Your task to perform on an android device: Search for asus rog on amazon, select the first entry, add it to the cart, then select checkout. Image 0: 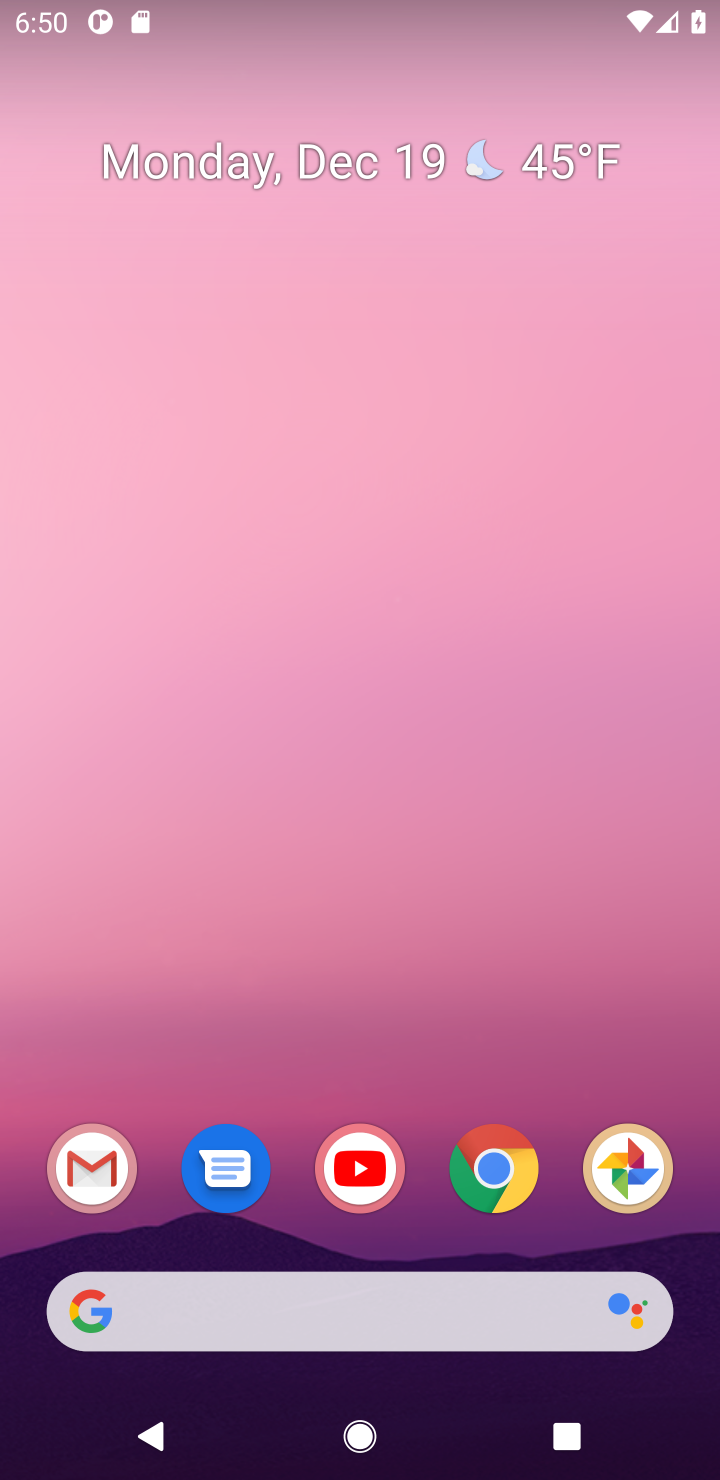
Step 0: click (501, 1166)
Your task to perform on an android device: Search for asus rog on amazon, select the first entry, add it to the cart, then select checkout. Image 1: 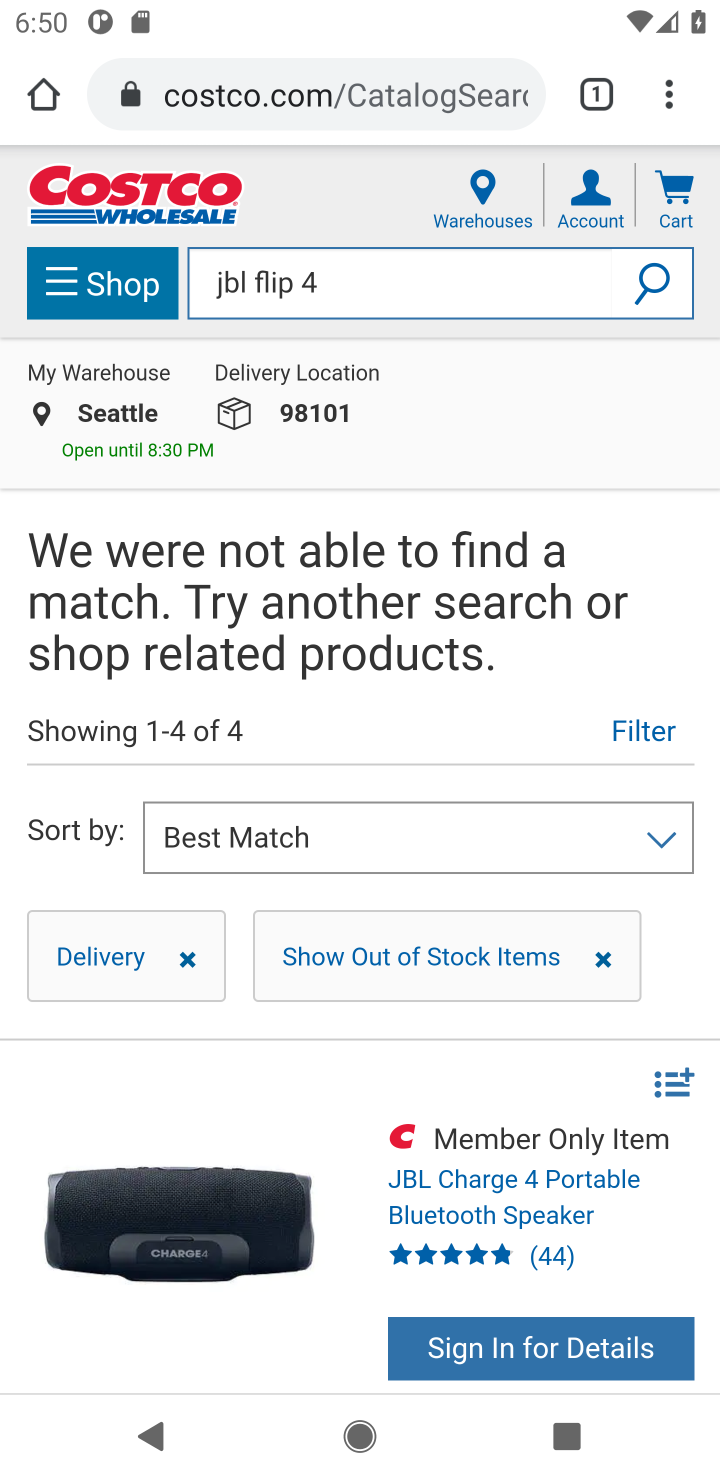
Step 1: click (320, 93)
Your task to perform on an android device: Search for asus rog on amazon, select the first entry, add it to the cart, then select checkout. Image 2: 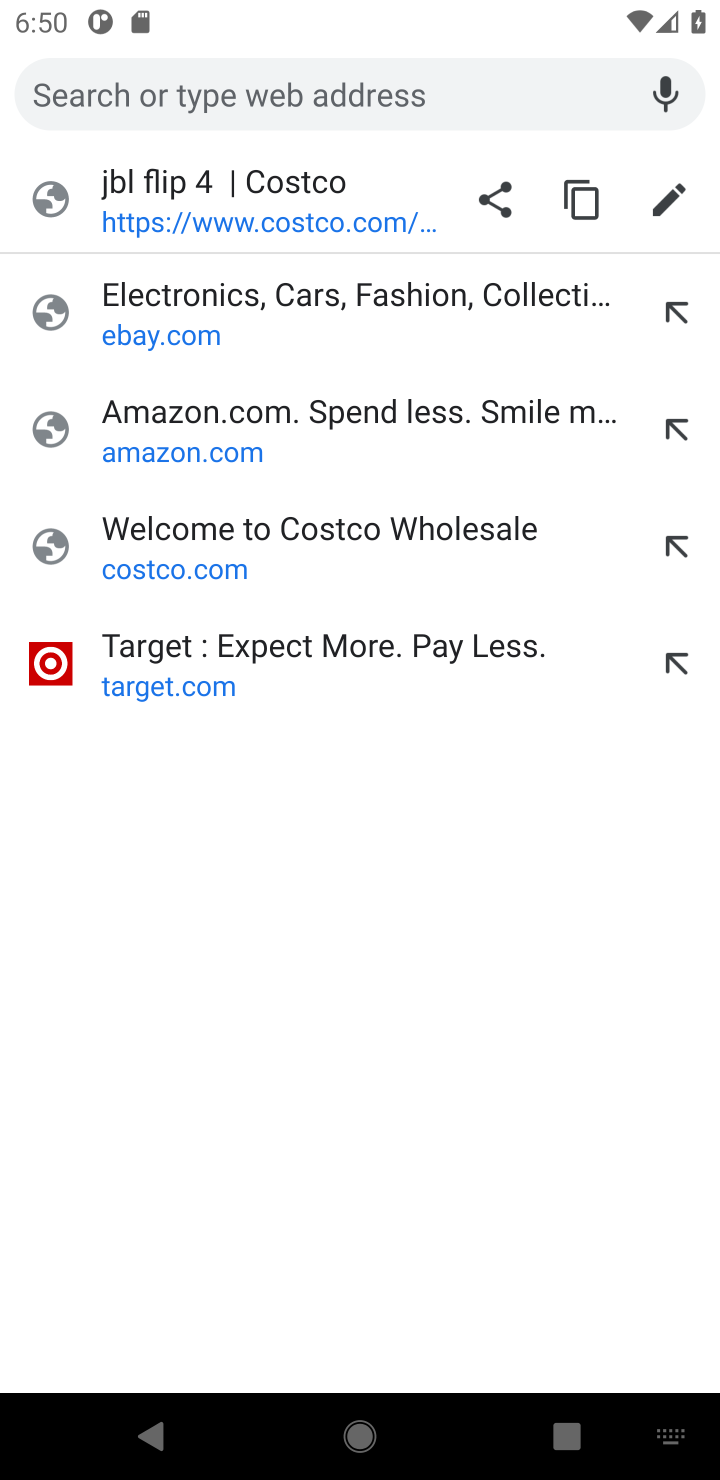
Step 2: click (166, 426)
Your task to perform on an android device: Search for asus rog on amazon, select the first entry, add it to the cart, then select checkout. Image 3: 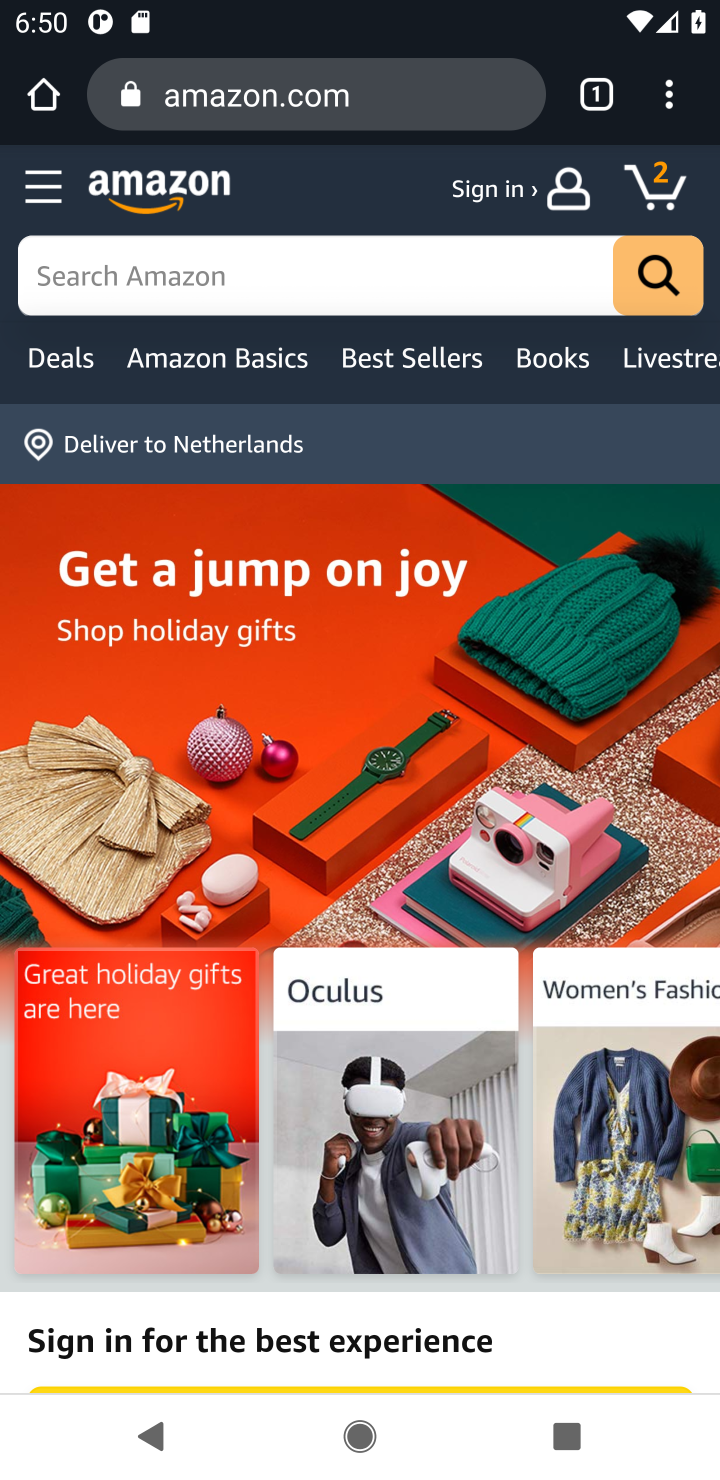
Step 3: click (167, 283)
Your task to perform on an android device: Search for asus rog on amazon, select the first entry, add it to the cart, then select checkout. Image 4: 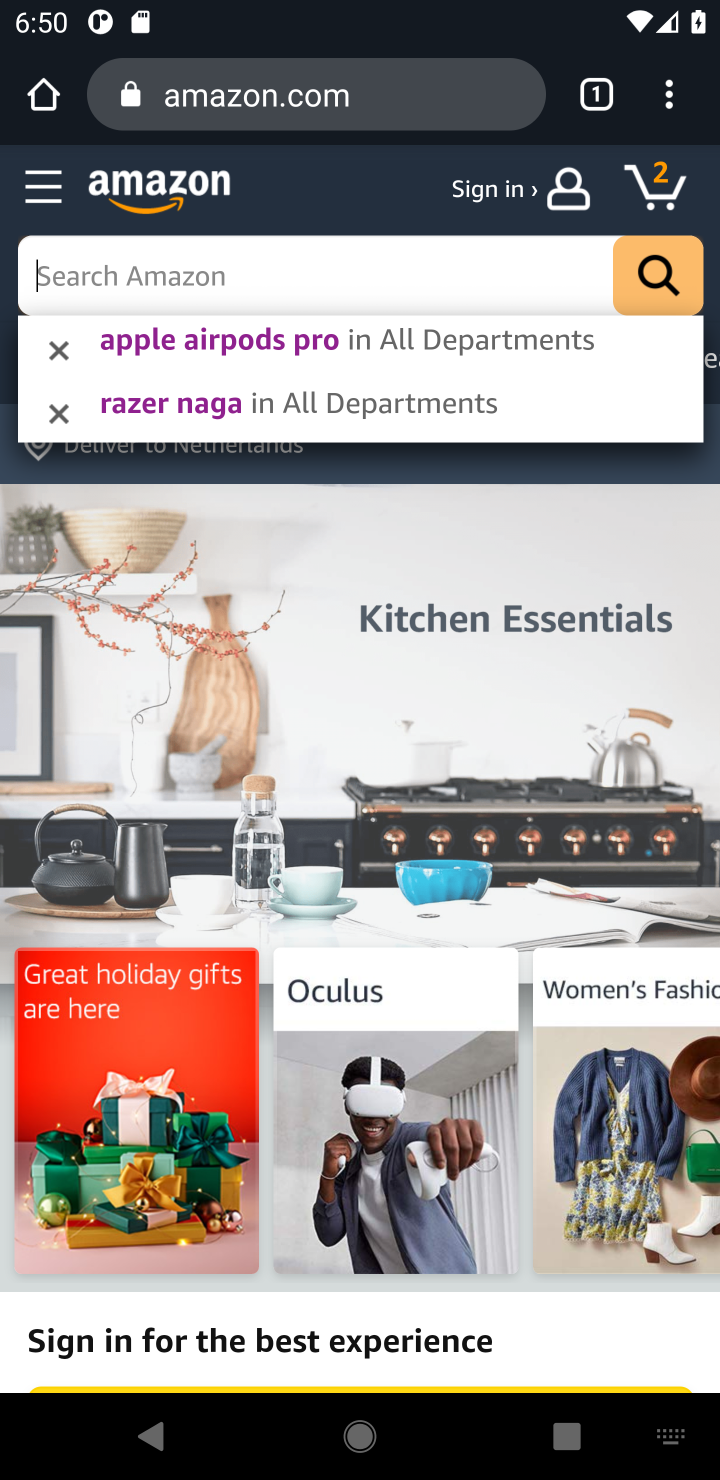
Step 4: type "asus rog"
Your task to perform on an android device: Search for asus rog on amazon, select the first entry, add it to the cart, then select checkout. Image 5: 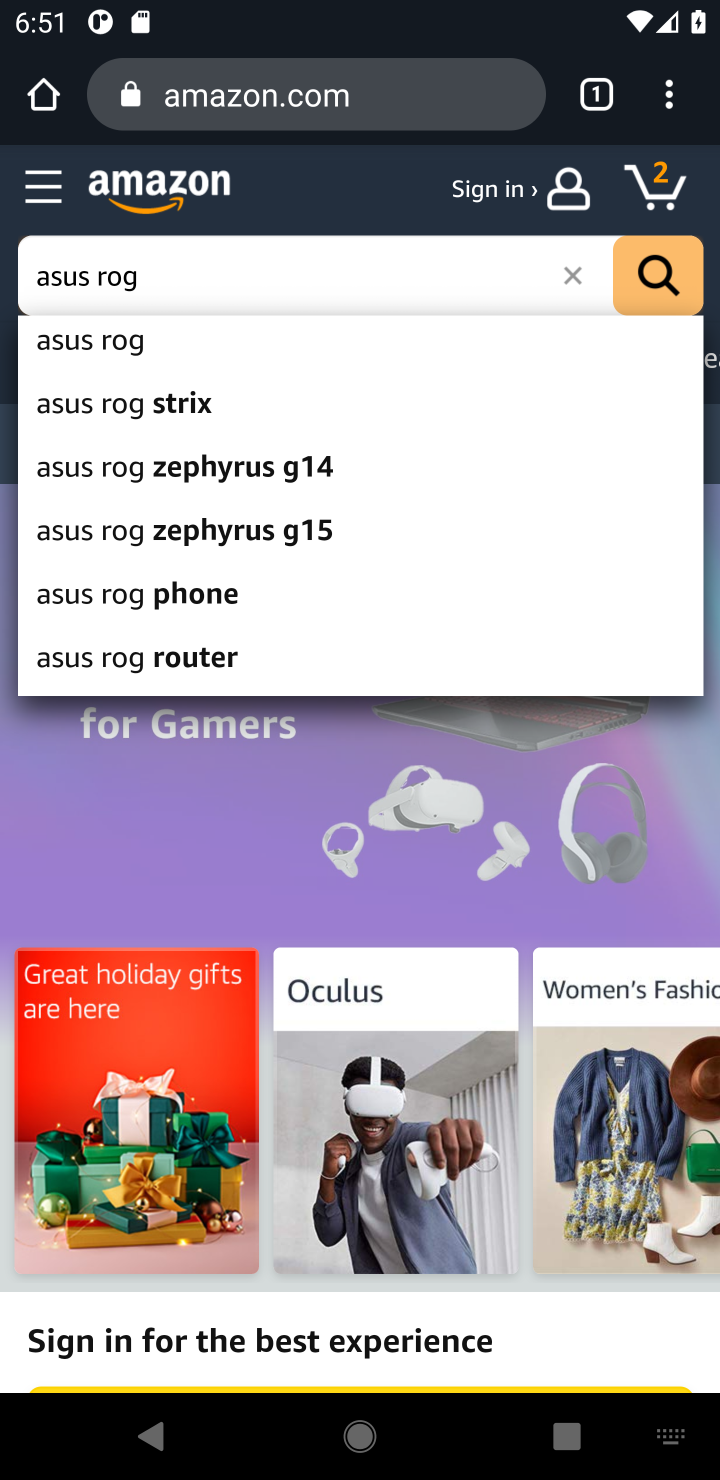
Step 5: click (51, 338)
Your task to perform on an android device: Search for asus rog on amazon, select the first entry, add it to the cart, then select checkout. Image 6: 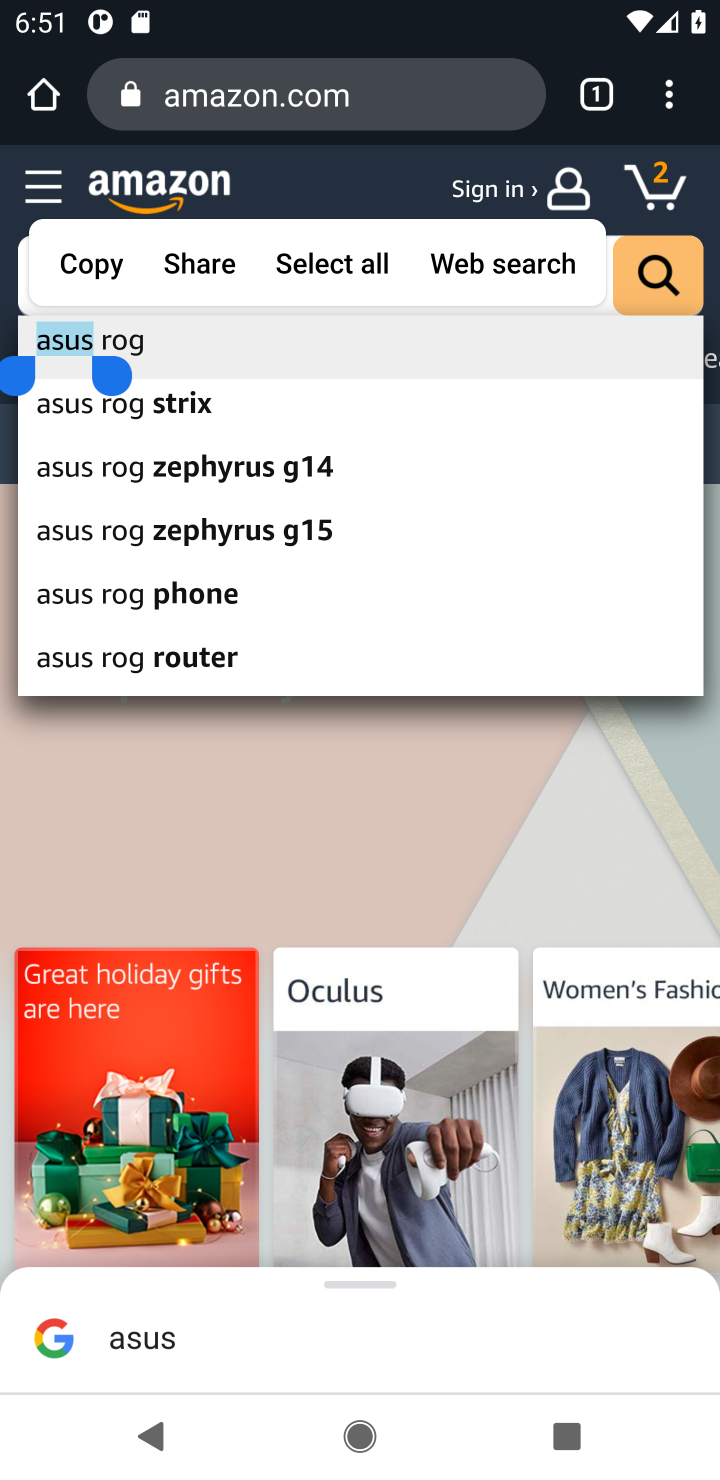
Step 6: click (111, 340)
Your task to perform on an android device: Search for asus rog on amazon, select the first entry, add it to the cart, then select checkout. Image 7: 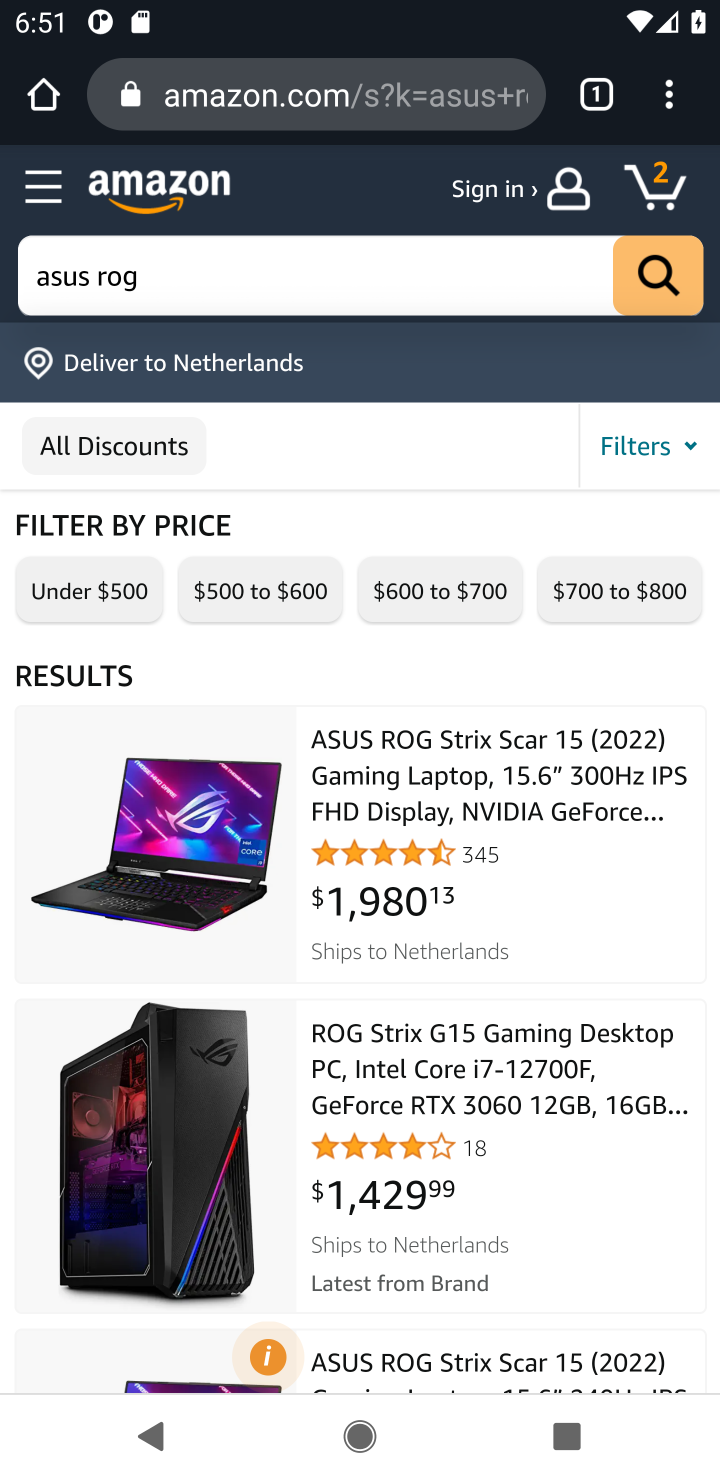
Step 7: click (425, 785)
Your task to perform on an android device: Search for asus rog on amazon, select the first entry, add it to the cart, then select checkout. Image 8: 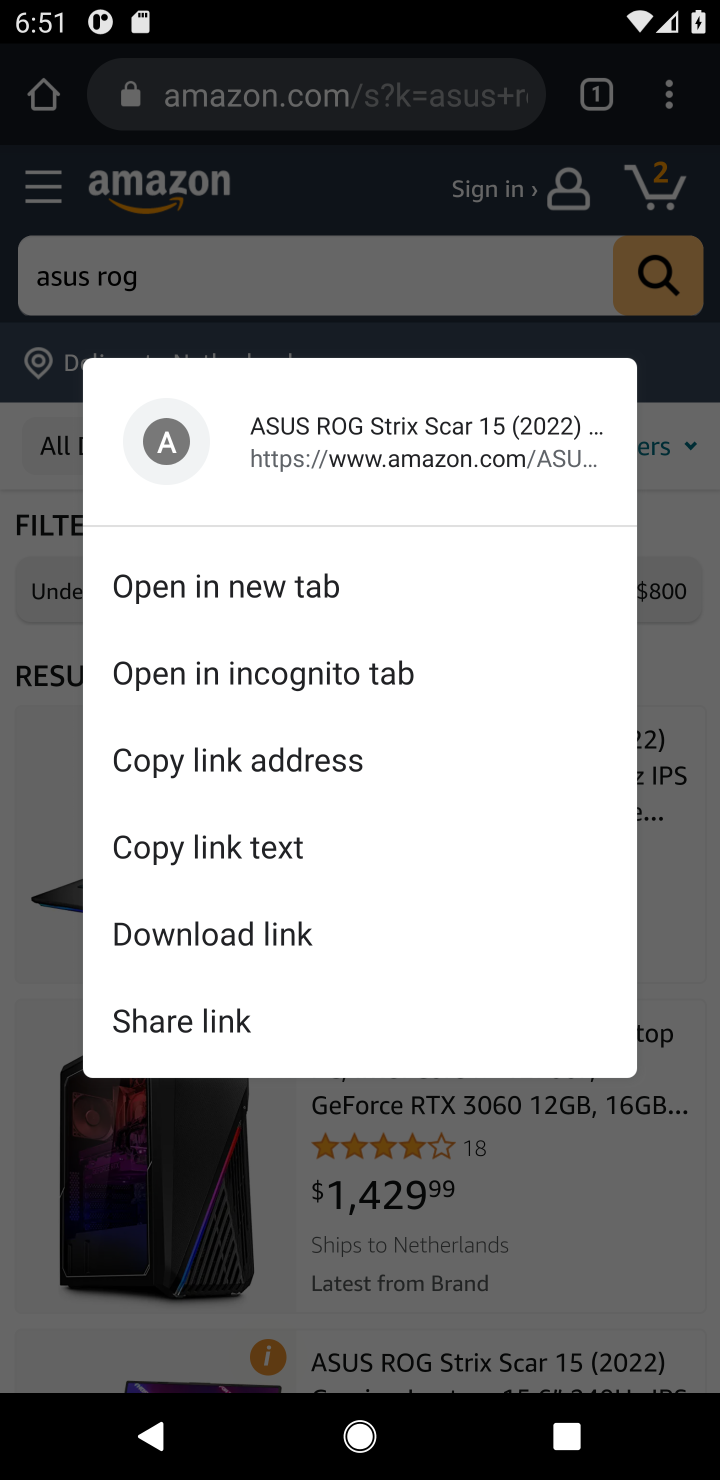
Step 8: click (670, 787)
Your task to perform on an android device: Search for asus rog on amazon, select the first entry, add it to the cart, then select checkout. Image 9: 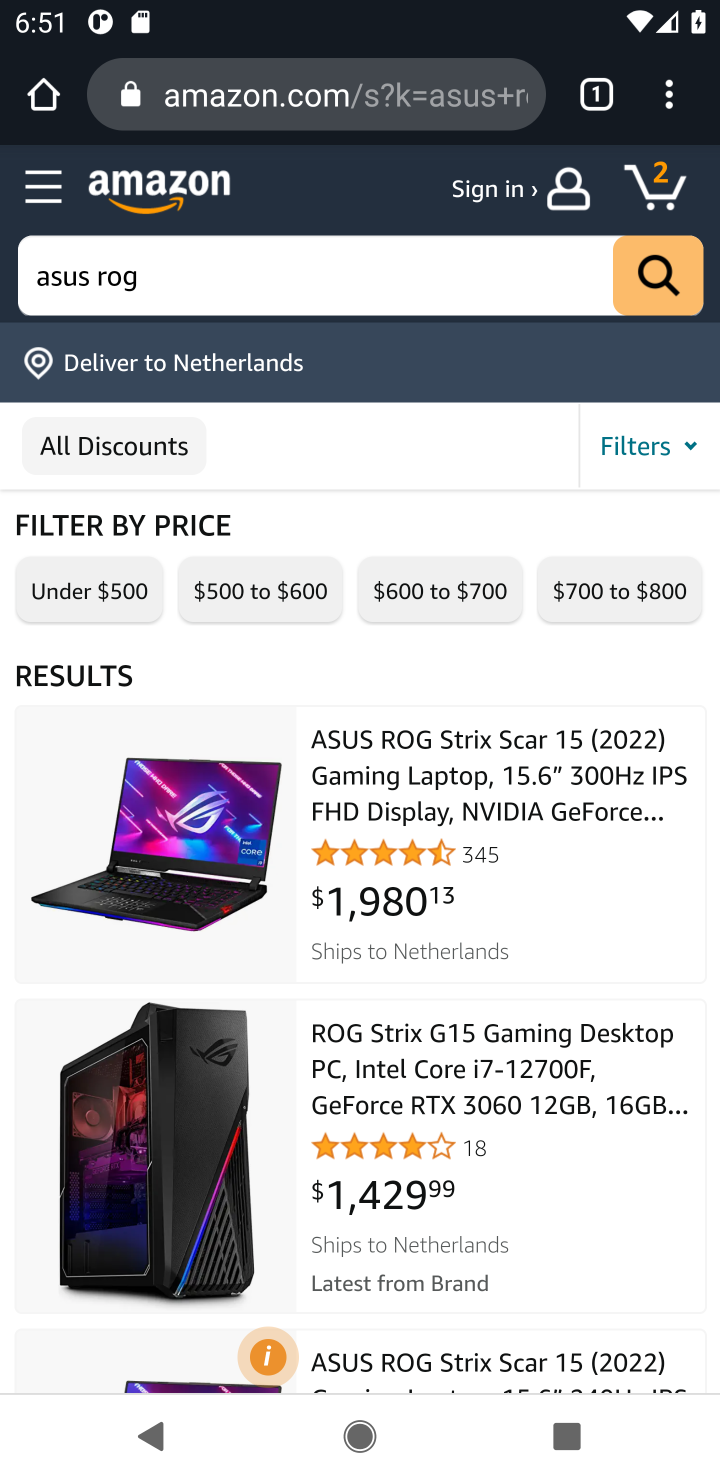
Step 9: click (402, 793)
Your task to perform on an android device: Search for asus rog on amazon, select the first entry, add it to the cart, then select checkout. Image 10: 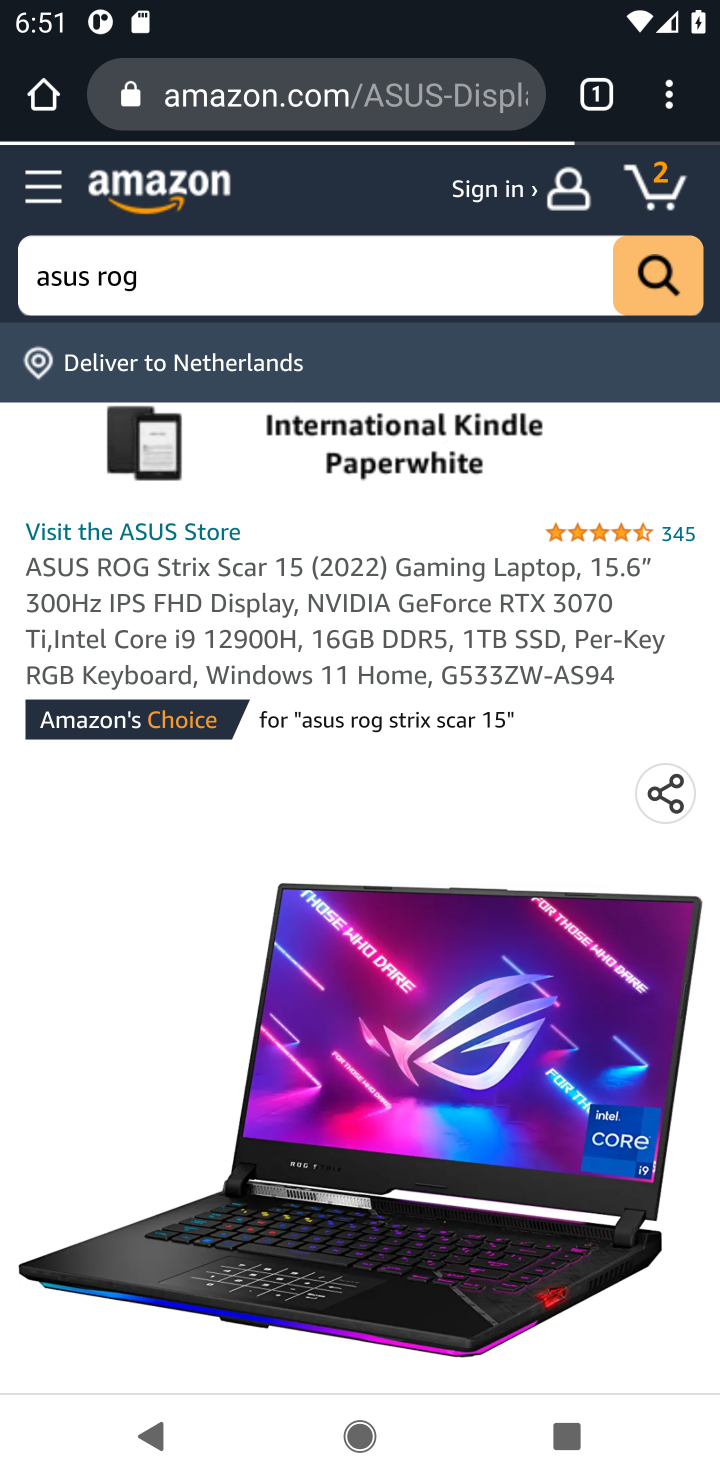
Step 10: drag from (366, 927) to (321, 463)
Your task to perform on an android device: Search for asus rog on amazon, select the first entry, add it to the cart, then select checkout. Image 11: 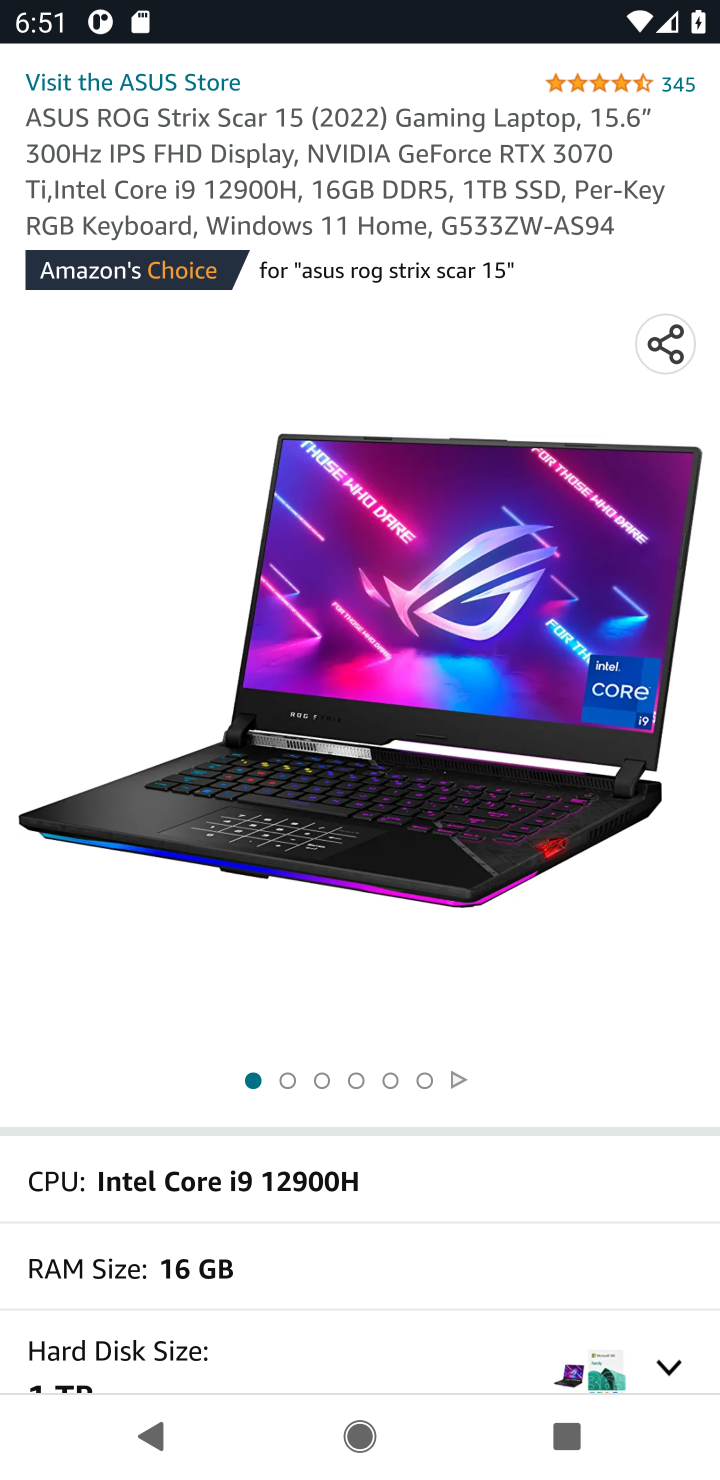
Step 11: drag from (333, 921) to (318, 476)
Your task to perform on an android device: Search for asus rog on amazon, select the first entry, add it to the cart, then select checkout. Image 12: 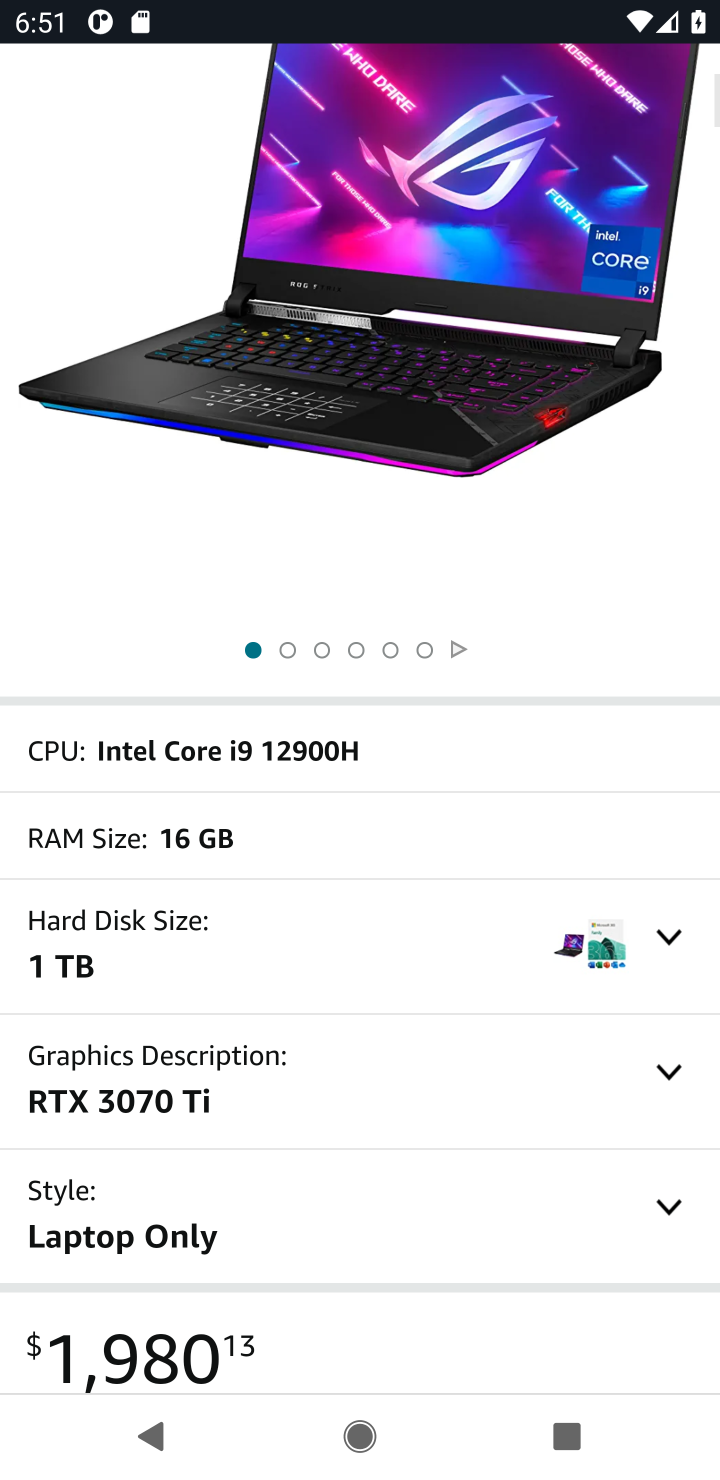
Step 12: drag from (311, 966) to (307, 351)
Your task to perform on an android device: Search for asus rog on amazon, select the first entry, add it to the cart, then select checkout. Image 13: 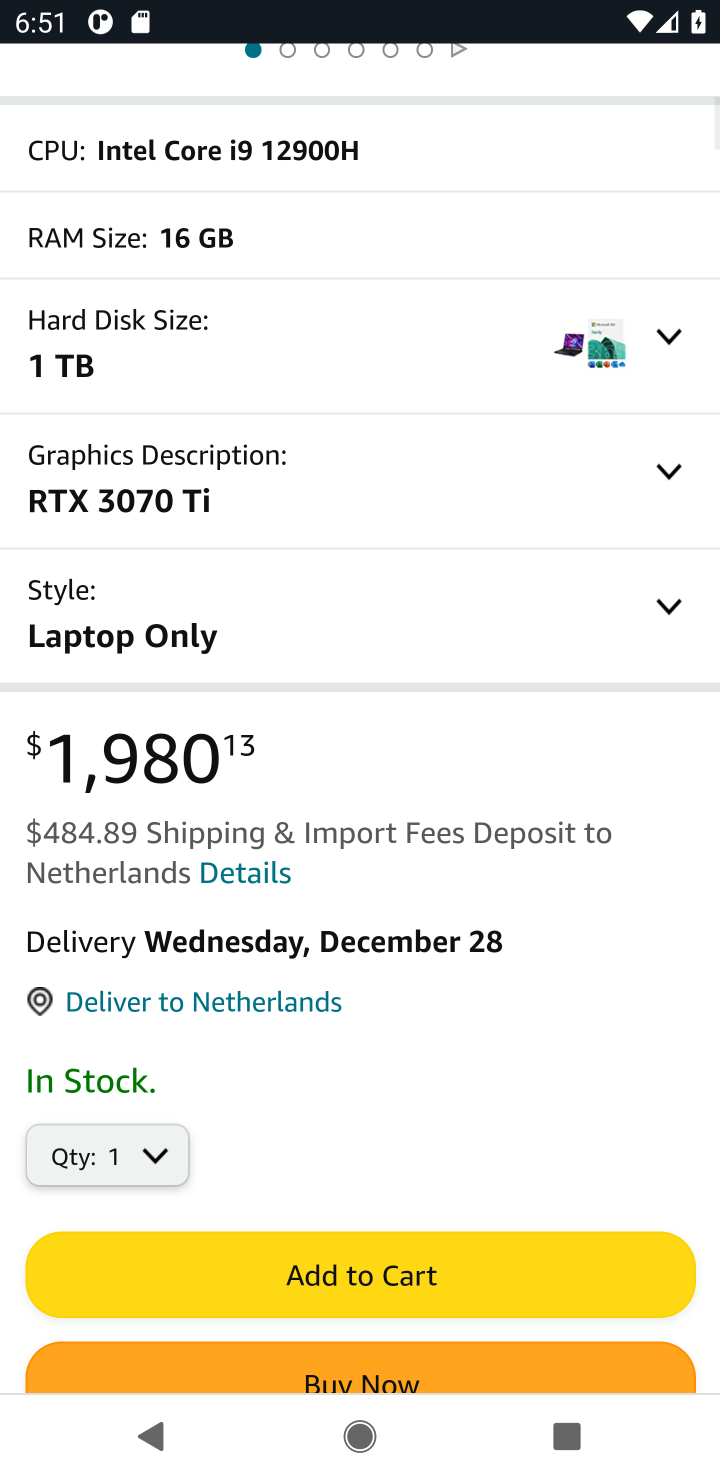
Step 13: drag from (289, 826) to (281, 336)
Your task to perform on an android device: Search for asus rog on amazon, select the first entry, add it to the cart, then select checkout. Image 14: 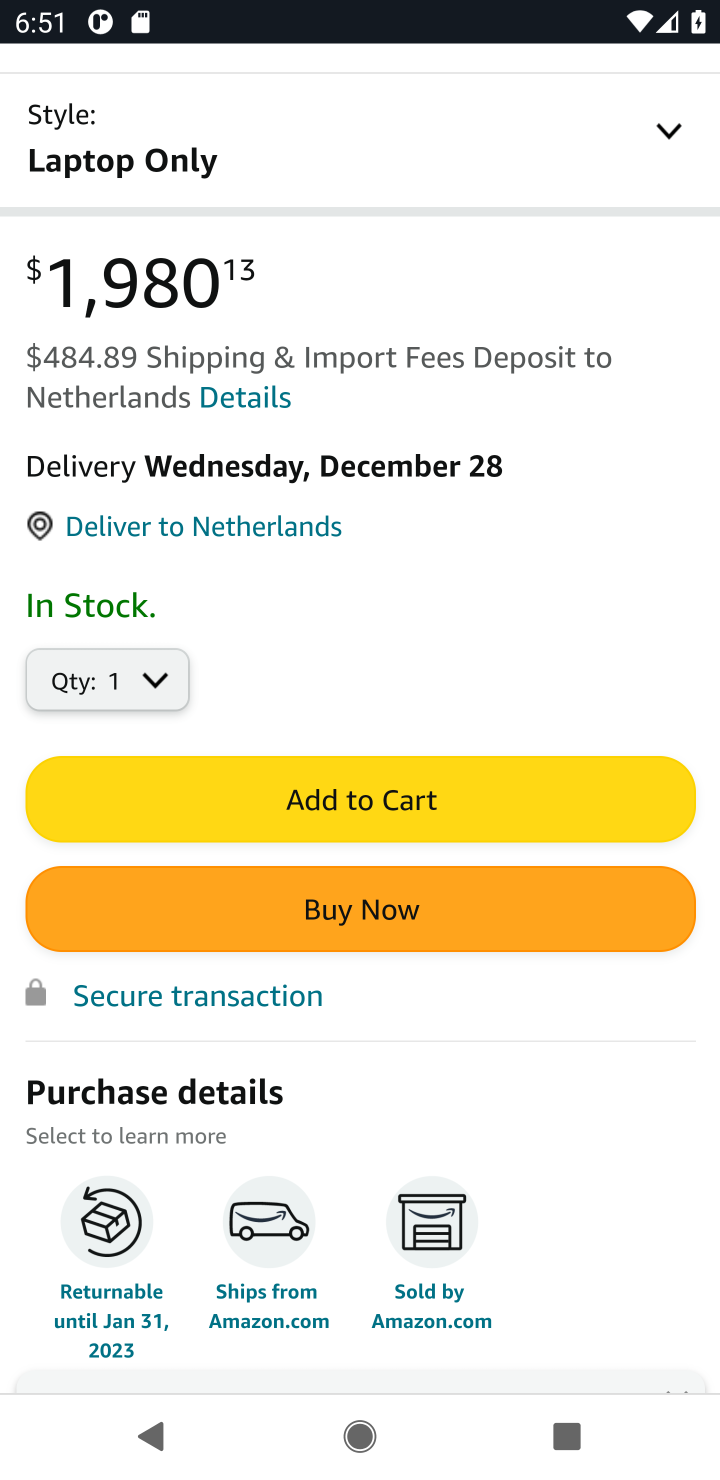
Step 14: click (286, 818)
Your task to perform on an android device: Search for asus rog on amazon, select the first entry, add it to the cart, then select checkout. Image 15: 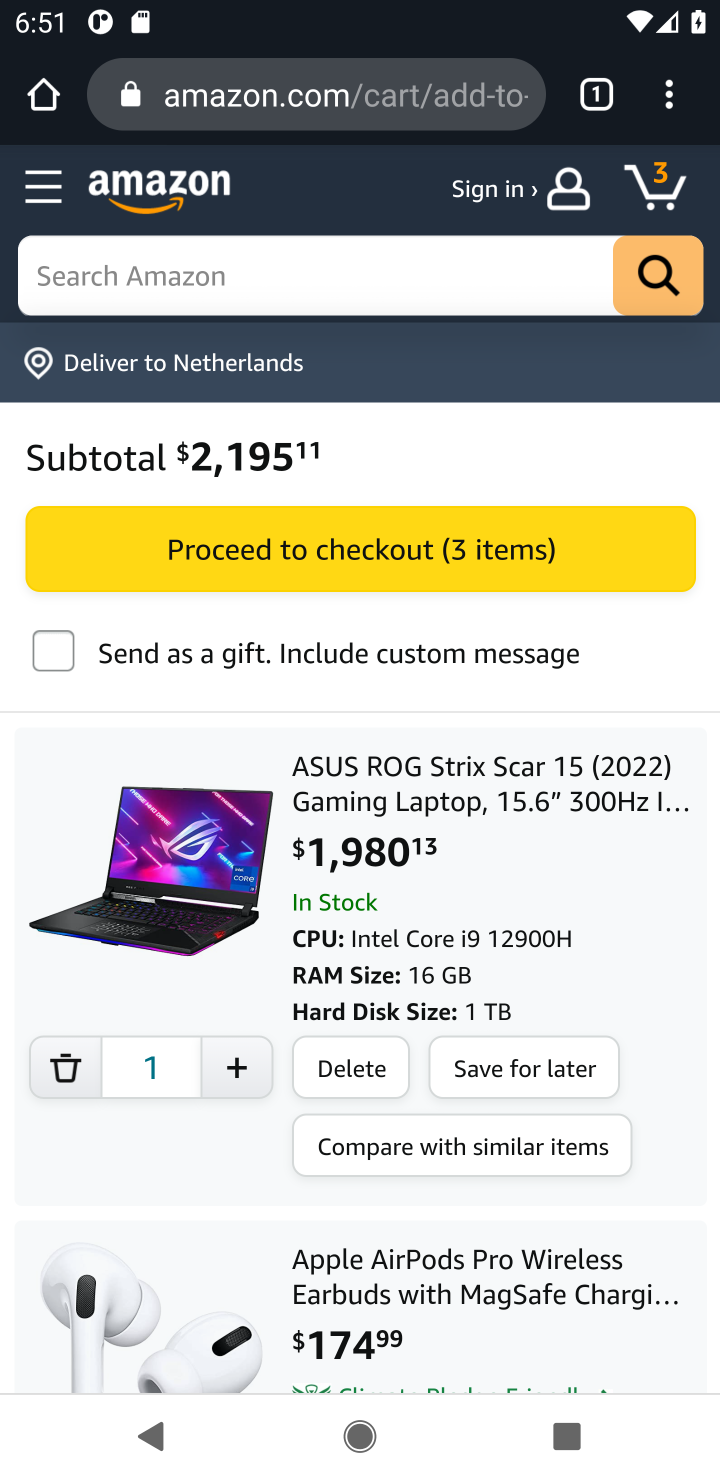
Step 15: click (300, 552)
Your task to perform on an android device: Search for asus rog on amazon, select the first entry, add it to the cart, then select checkout. Image 16: 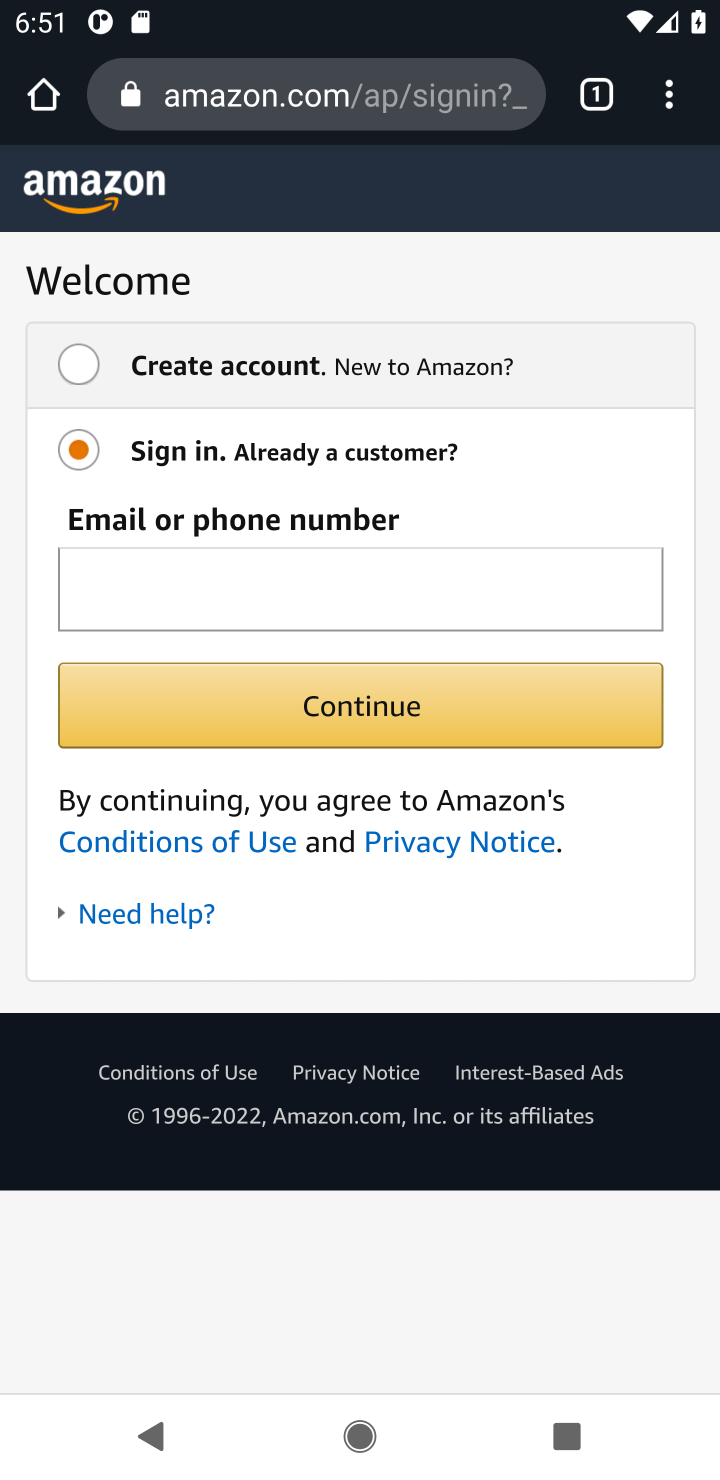
Step 16: task complete